Your task to perform on an android device: Go to internet settings Image 0: 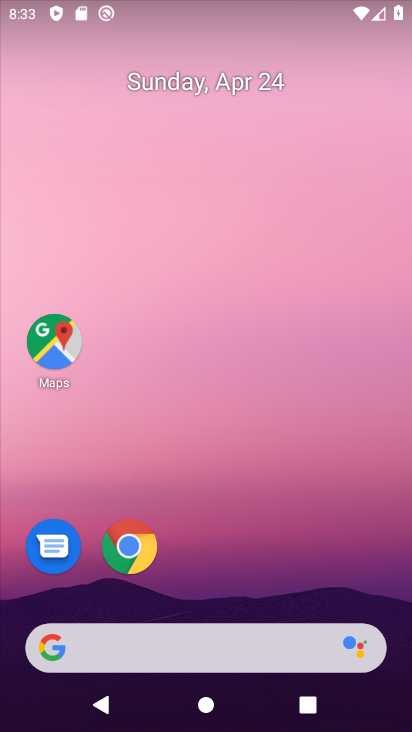
Step 0: drag from (242, 512) to (327, 63)
Your task to perform on an android device: Go to internet settings Image 1: 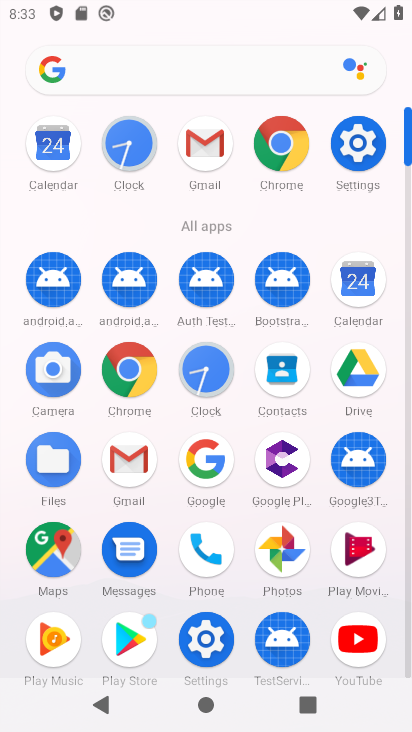
Step 1: click (361, 143)
Your task to perform on an android device: Go to internet settings Image 2: 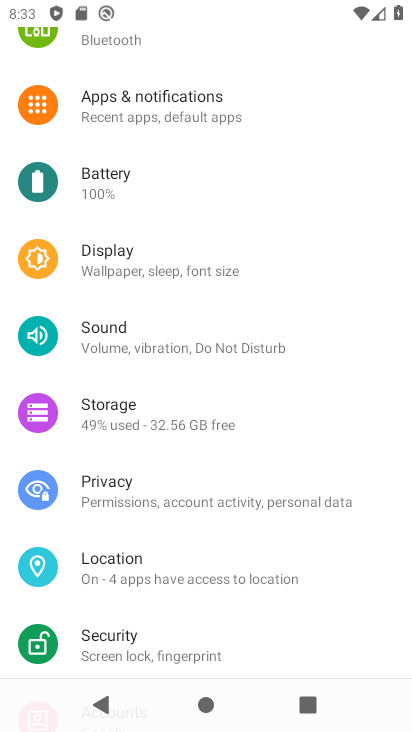
Step 2: drag from (246, 219) to (190, 577)
Your task to perform on an android device: Go to internet settings Image 3: 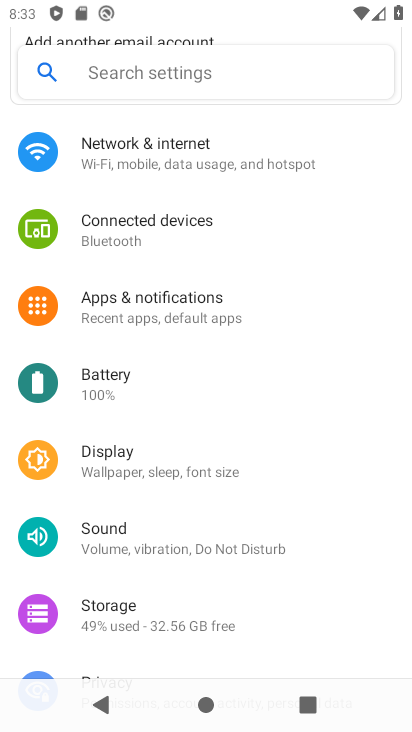
Step 3: click (176, 137)
Your task to perform on an android device: Go to internet settings Image 4: 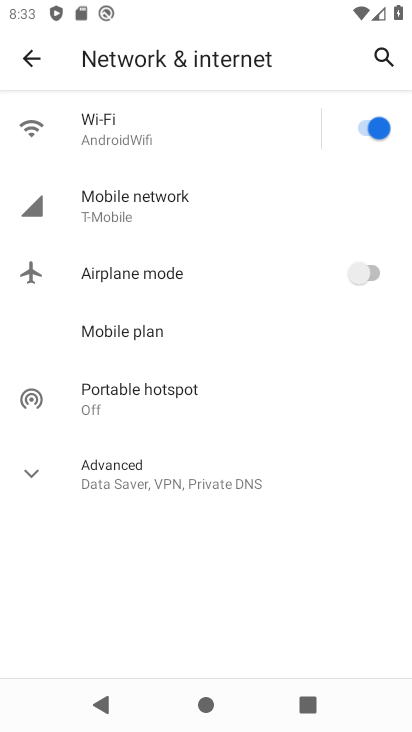
Step 4: task complete